Your task to perform on an android device: check out phone information Image 0: 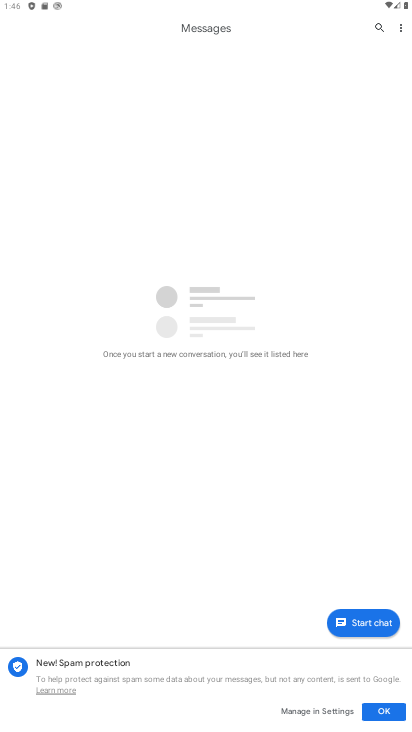
Step 0: press home button
Your task to perform on an android device: check out phone information Image 1: 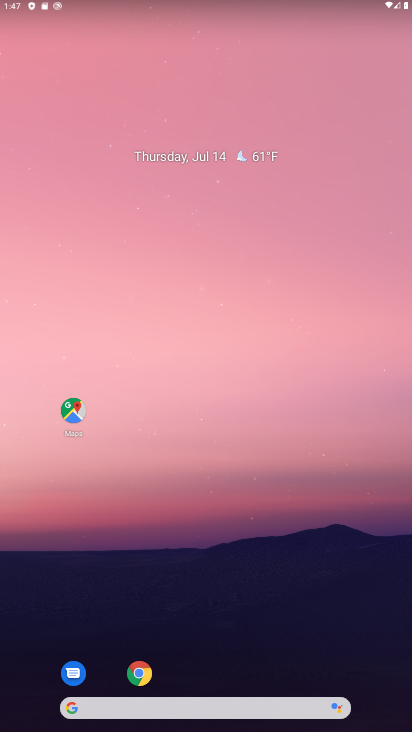
Step 1: click (224, 242)
Your task to perform on an android device: check out phone information Image 2: 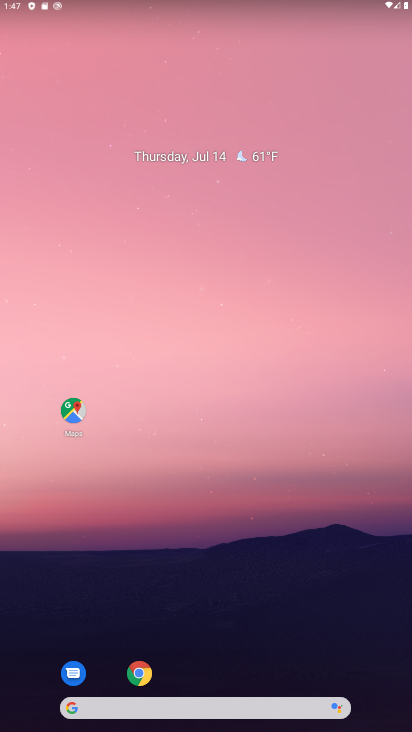
Step 2: drag from (187, 654) to (177, 181)
Your task to perform on an android device: check out phone information Image 3: 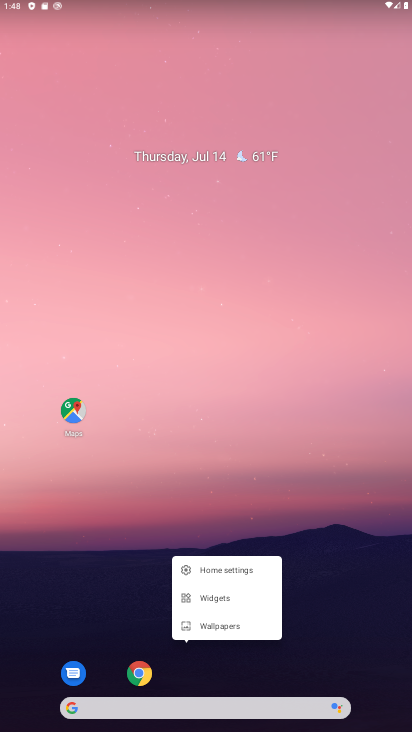
Step 3: drag from (224, 681) to (268, 174)
Your task to perform on an android device: check out phone information Image 4: 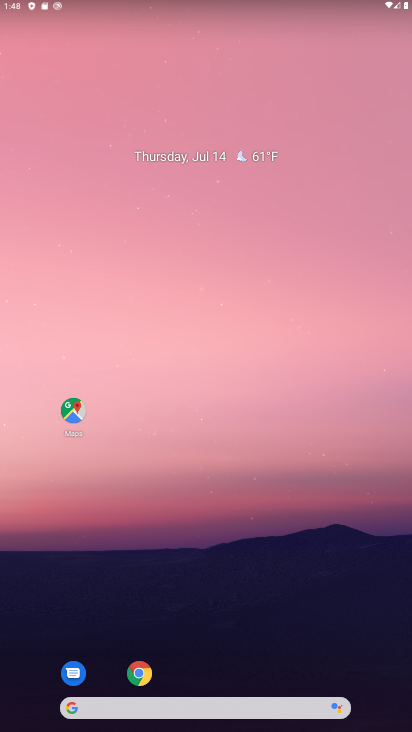
Step 4: drag from (195, 681) to (396, 15)
Your task to perform on an android device: check out phone information Image 5: 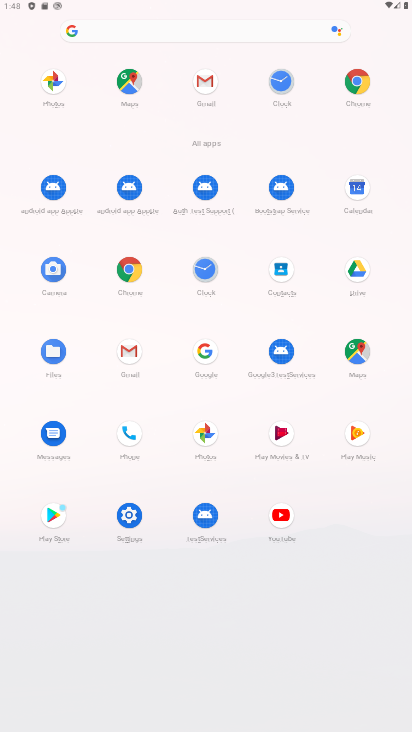
Step 5: click (123, 523)
Your task to perform on an android device: check out phone information Image 6: 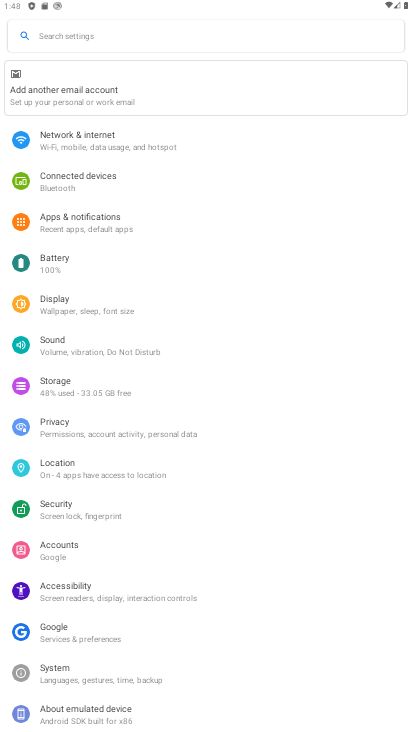
Step 6: drag from (79, 708) to (93, 297)
Your task to perform on an android device: check out phone information Image 7: 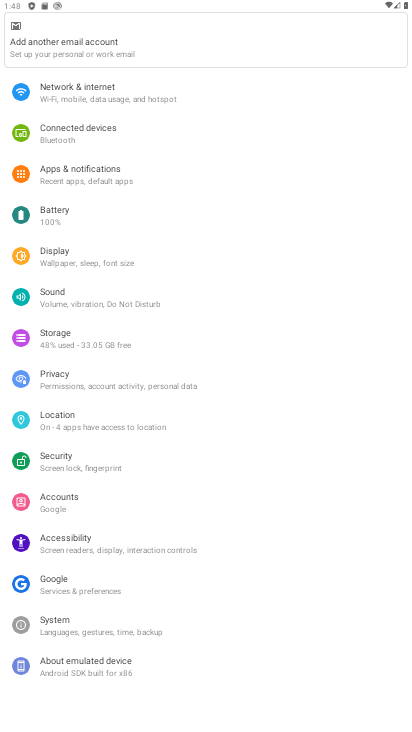
Step 7: click (52, 682)
Your task to perform on an android device: check out phone information Image 8: 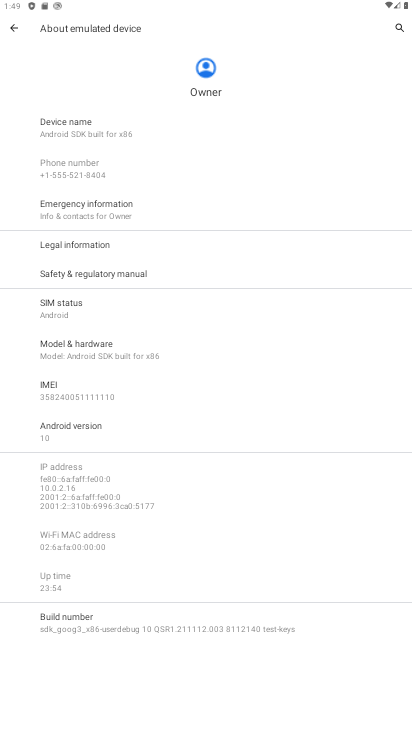
Step 8: task complete